Your task to perform on an android device: delete the emails in spam in the gmail app Image 0: 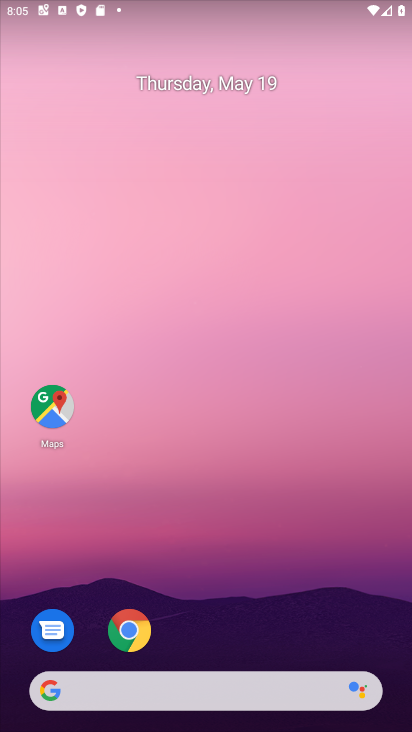
Step 0: drag from (386, 666) to (357, 89)
Your task to perform on an android device: delete the emails in spam in the gmail app Image 1: 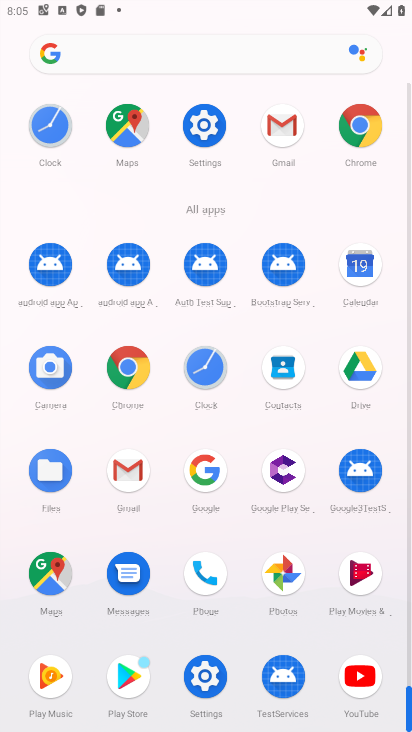
Step 1: click (127, 470)
Your task to perform on an android device: delete the emails in spam in the gmail app Image 2: 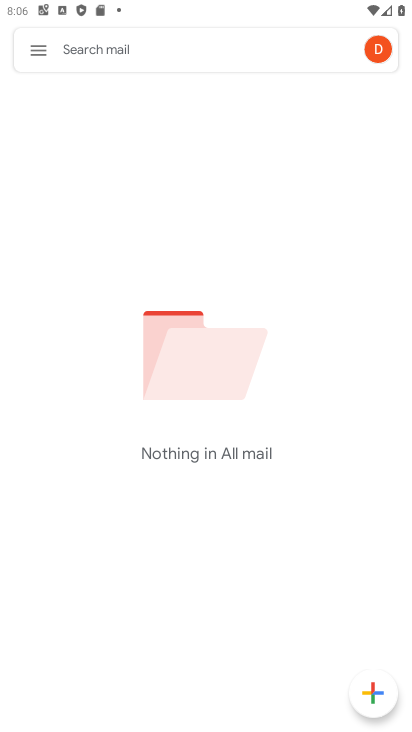
Step 2: click (37, 49)
Your task to perform on an android device: delete the emails in spam in the gmail app Image 3: 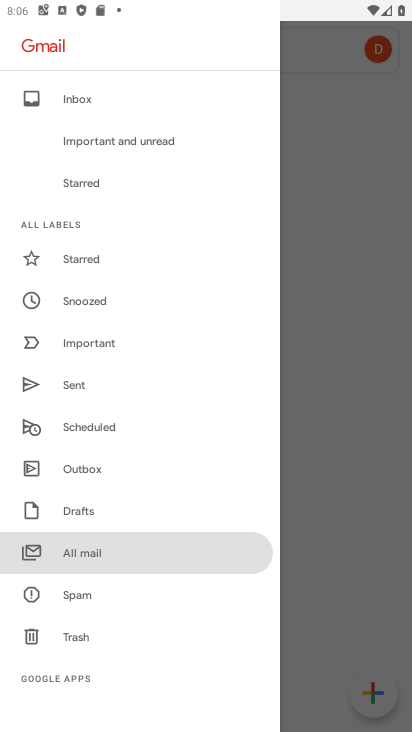
Step 3: click (71, 589)
Your task to perform on an android device: delete the emails in spam in the gmail app Image 4: 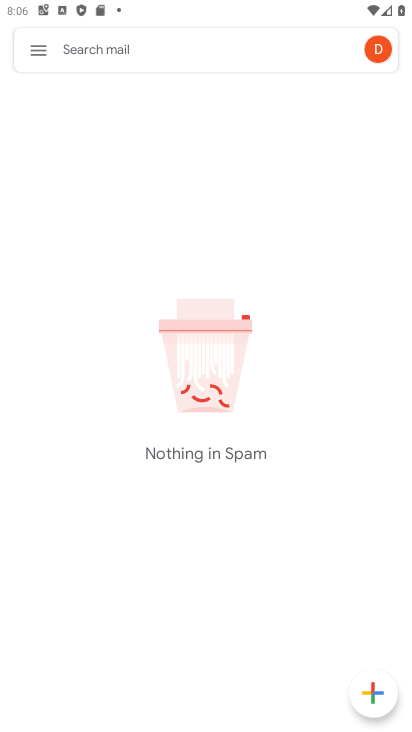
Step 4: task complete